Your task to perform on an android device: turn on airplane mode Image 0: 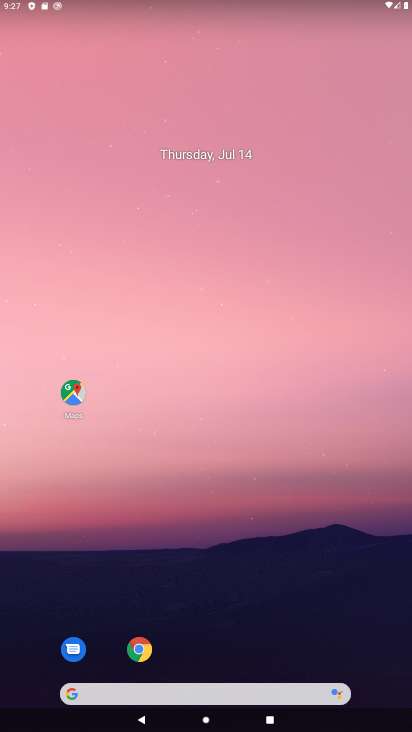
Step 0: drag from (181, 453) to (181, 281)
Your task to perform on an android device: turn on airplane mode Image 1: 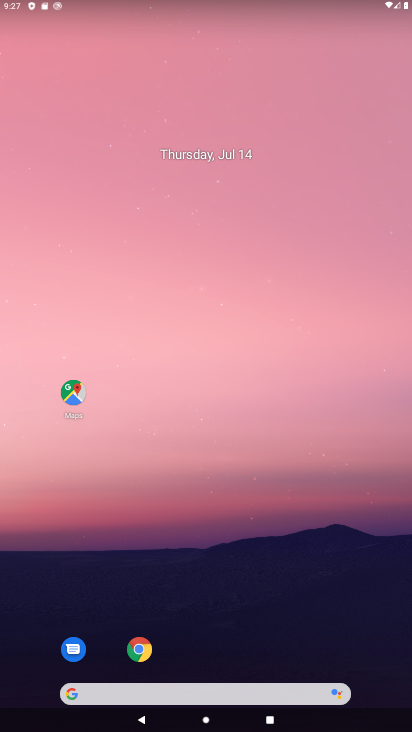
Step 1: drag from (213, 596) to (282, 6)
Your task to perform on an android device: turn on airplane mode Image 2: 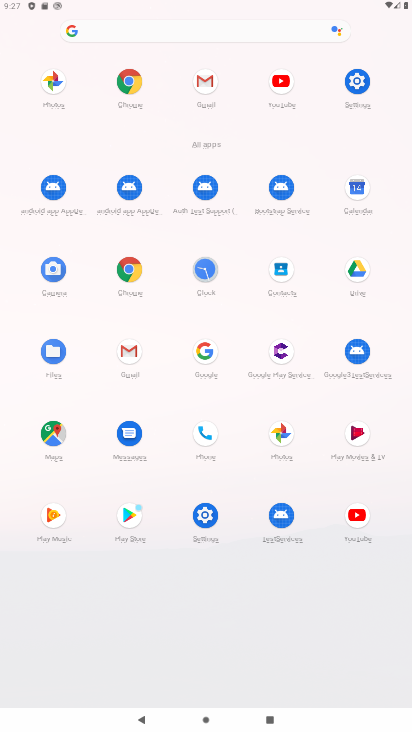
Step 2: click (361, 93)
Your task to perform on an android device: turn on airplane mode Image 3: 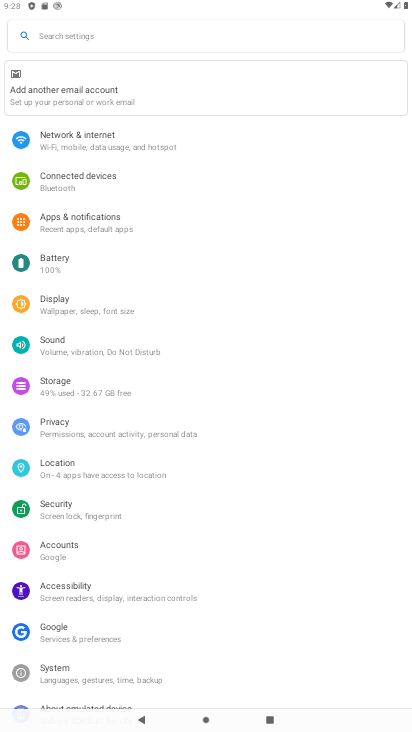
Step 3: click (95, 136)
Your task to perform on an android device: turn on airplane mode Image 4: 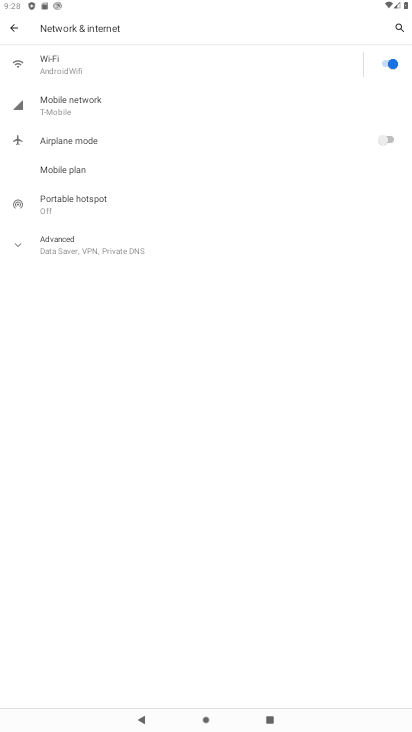
Step 4: click (393, 138)
Your task to perform on an android device: turn on airplane mode Image 5: 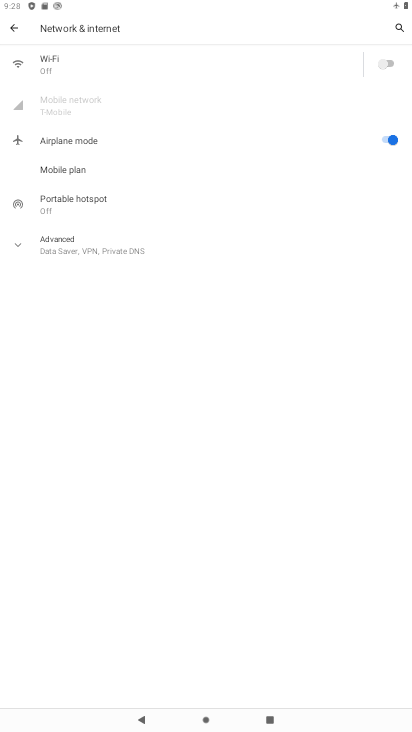
Step 5: task complete